Your task to perform on an android device: Go to battery settings Image 0: 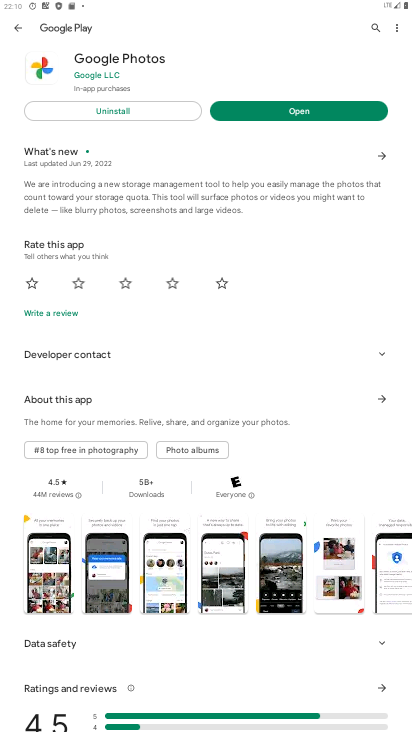
Step 0: drag from (284, 240) to (314, 699)
Your task to perform on an android device: Go to battery settings Image 1: 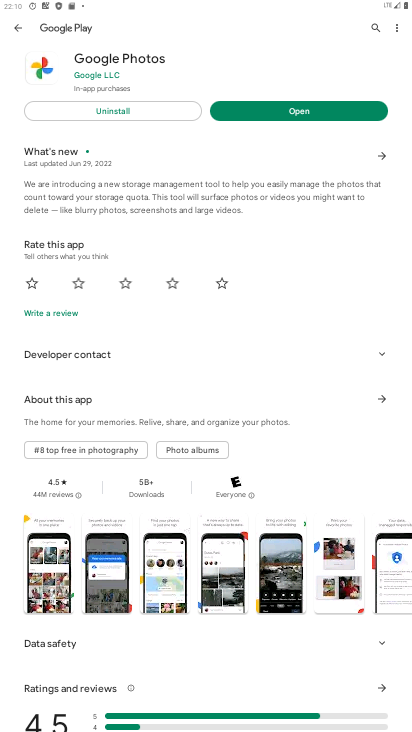
Step 1: press home button
Your task to perform on an android device: Go to battery settings Image 2: 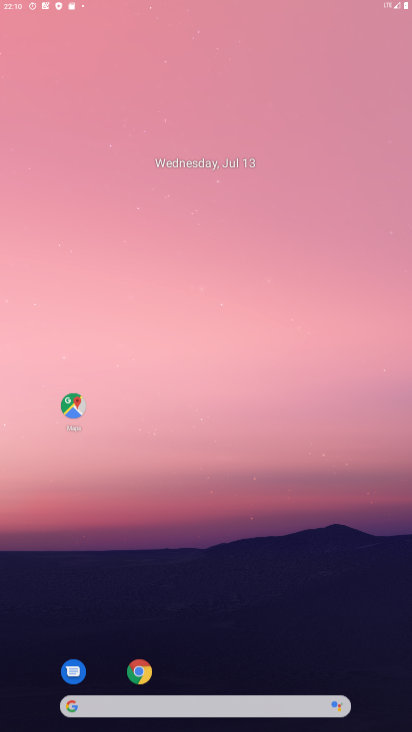
Step 2: drag from (202, 601) to (192, 118)
Your task to perform on an android device: Go to battery settings Image 3: 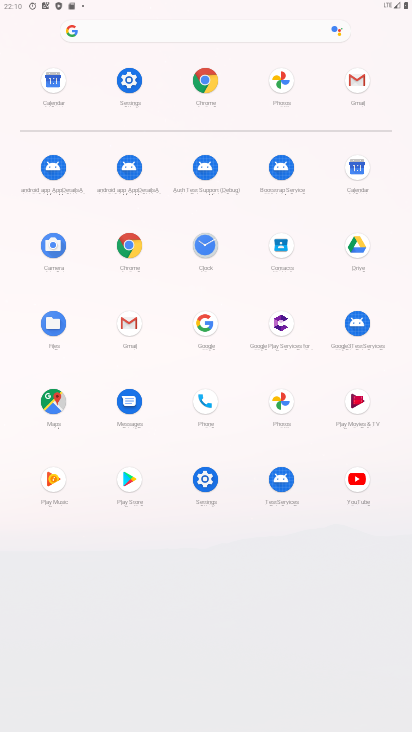
Step 3: click (121, 82)
Your task to perform on an android device: Go to battery settings Image 4: 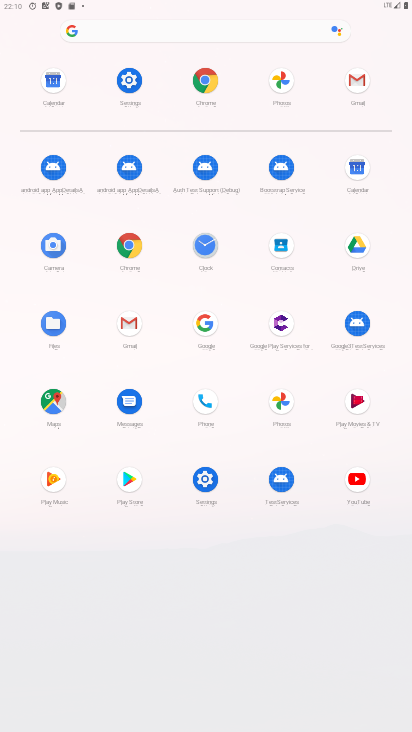
Step 4: click (121, 82)
Your task to perform on an android device: Go to battery settings Image 5: 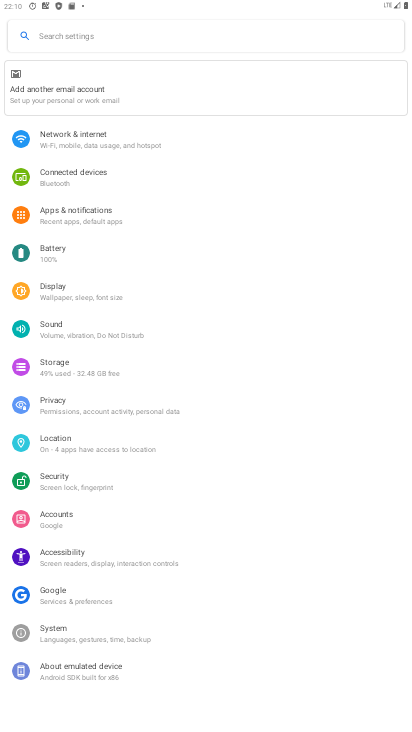
Step 5: click (63, 252)
Your task to perform on an android device: Go to battery settings Image 6: 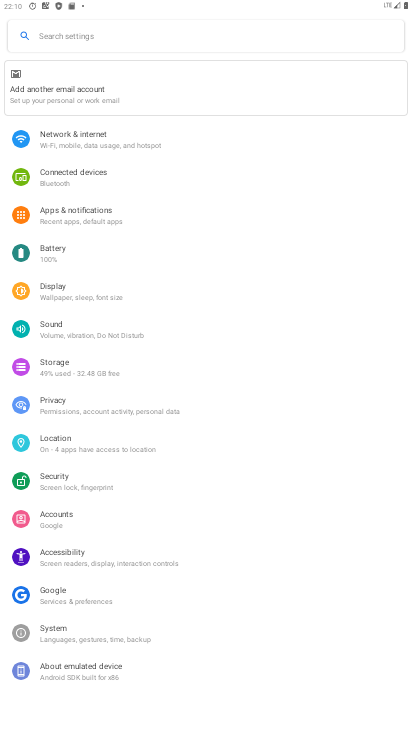
Step 6: click (63, 252)
Your task to perform on an android device: Go to battery settings Image 7: 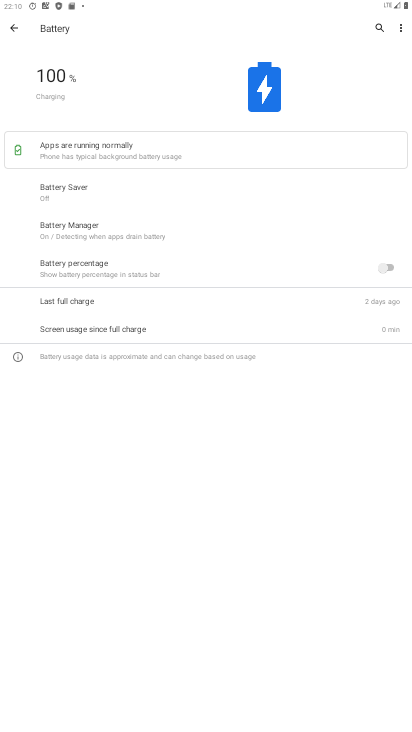
Step 7: task complete